Your task to perform on an android device: Go to Android settings Image 0: 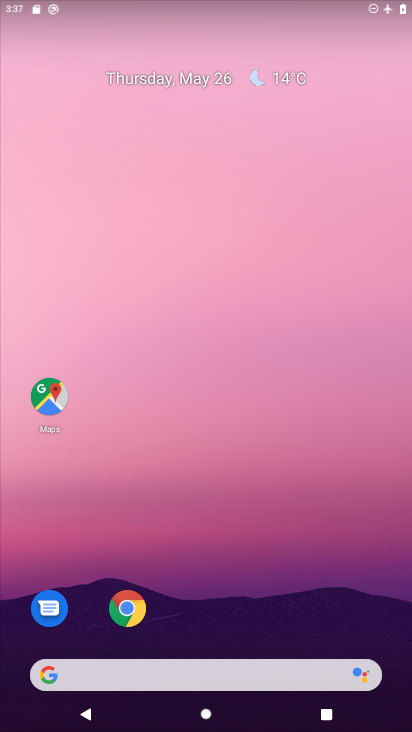
Step 0: drag from (303, 549) to (363, 164)
Your task to perform on an android device: Go to Android settings Image 1: 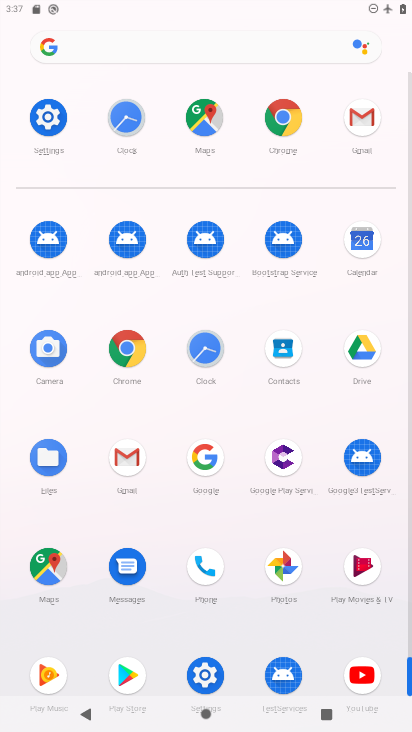
Step 1: click (45, 130)
Your task to perform on an android device: Go to Android settings Image 2: 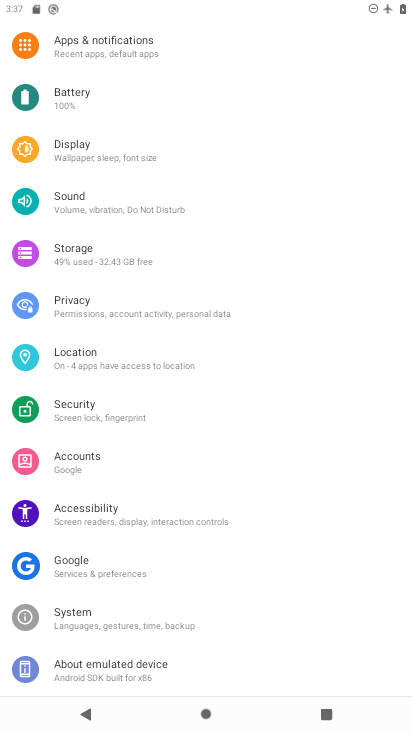
Step 2: task complete